Your task to perform on an android device: find photos in the google photos app Image 0: 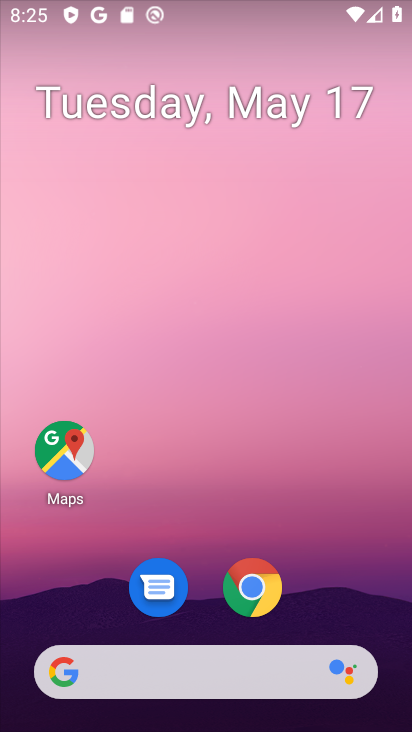
Step 0: drag from (293, 419) to (219, 246)
Your task to perform on an android device: find photos in the google photos app Image 1: 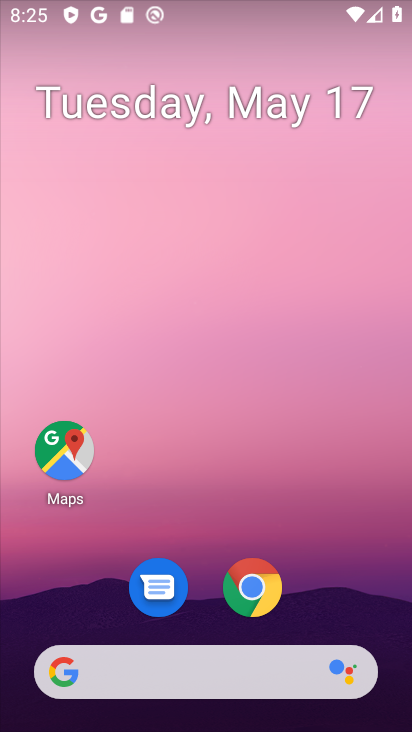
Step 1: drag from (334, 583) to (156, 131)
Your task to perform on an android device: find photos in the google photos app Image 2: 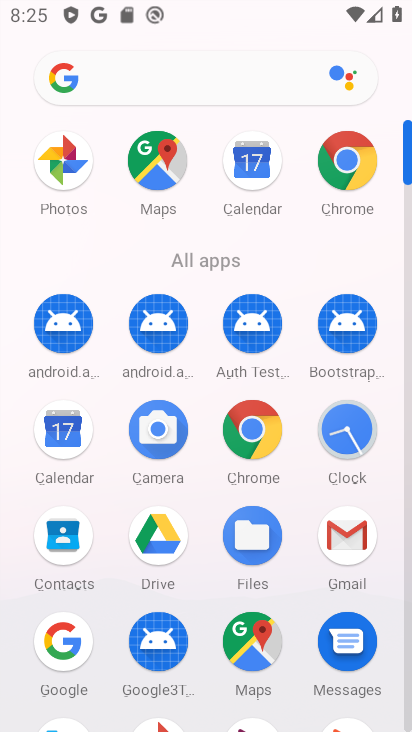
Step 2: click (63, 152)
Your task to perform on an android device: find photos in the google photos app Image 3: 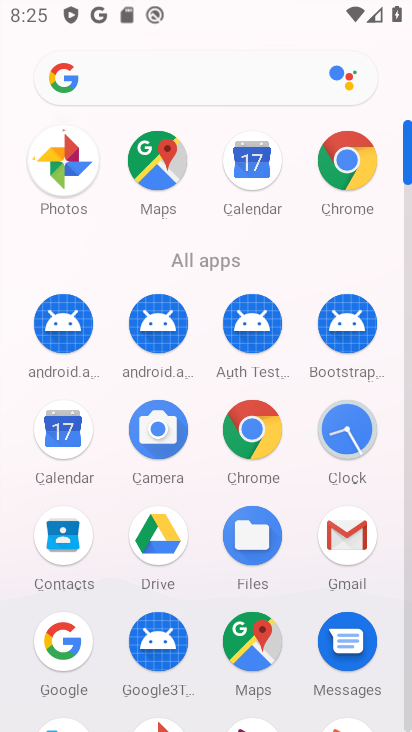
Step 3: click (67, 152)
Your task to perform on an android device: find photos in the google photos app Image 4: 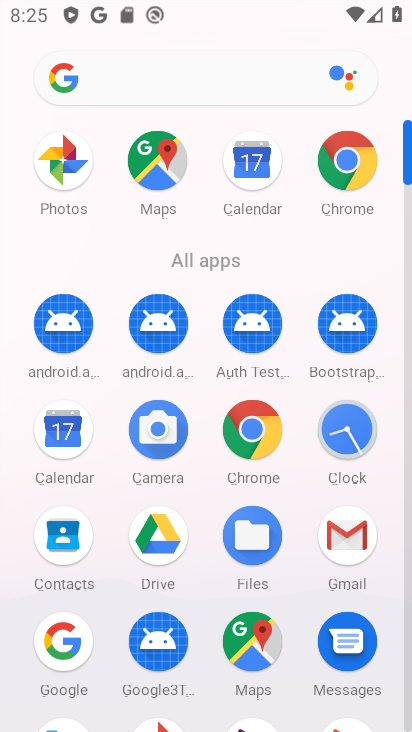
Step 4: click (67, 152)
Your task to perform on an android device: find photos in the google photos app Image 5: 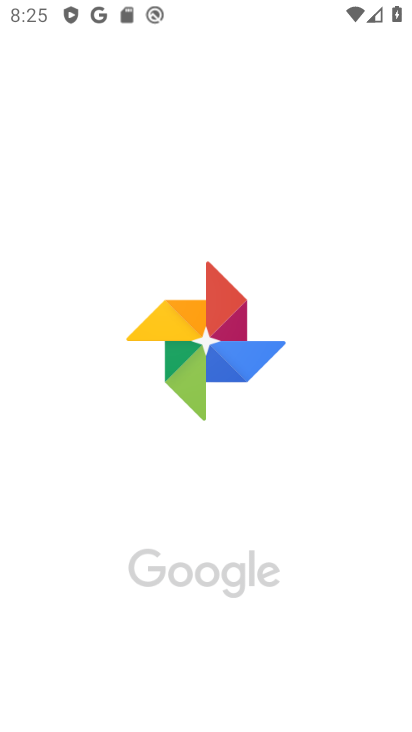
Step 5: click (67, 178)
Your task to perform on an android device: find photos in the google photos app Image 6: 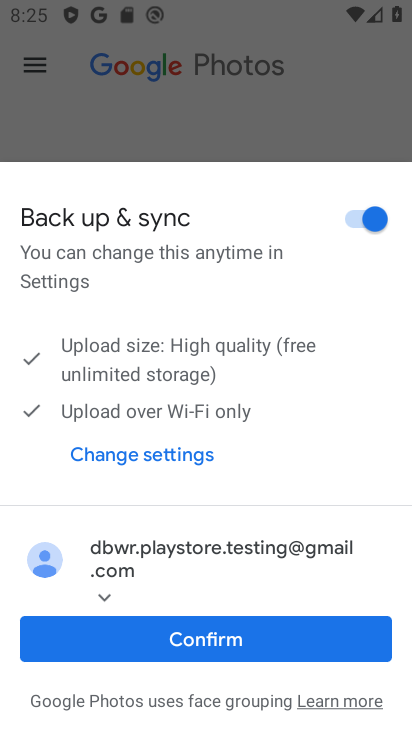
Step 6: click (220, 634)
Your task to perform on an android device: find photos in the google photos app Image 7: 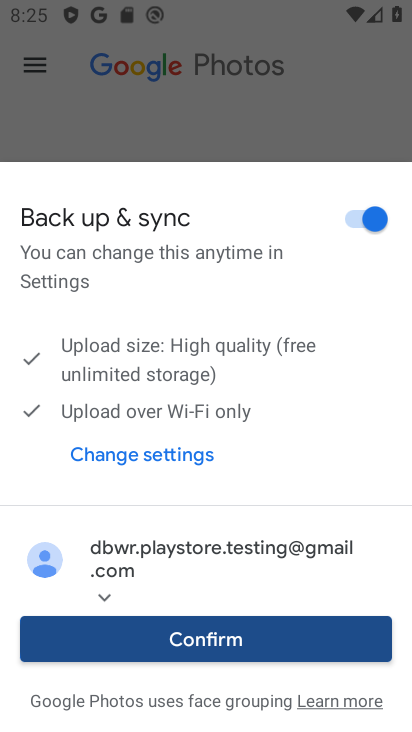
Step 7: click (219, 632)
Your task to perform on an android device: find photos in the google photos app Image 8: 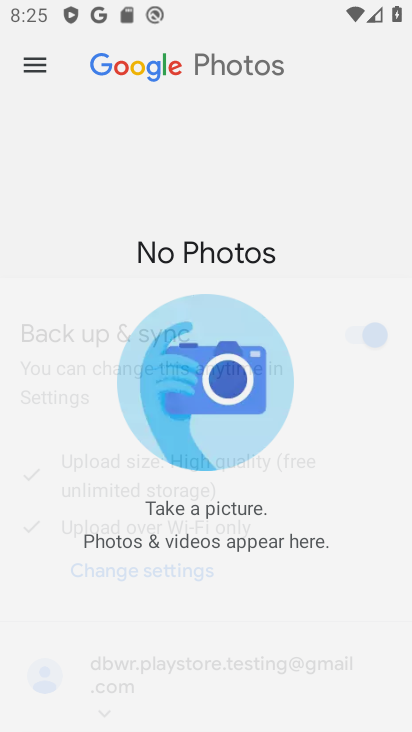
Step 8: click (219, 632)
Your task to perform on an android device: find photos in the google photos app Image 9: 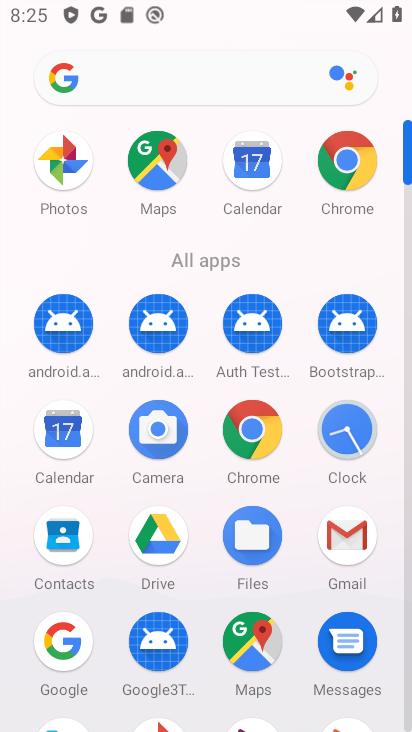
Step 9: click (219, 632)
Your task to perform on an android device: find photos in the google photos app Image 10: 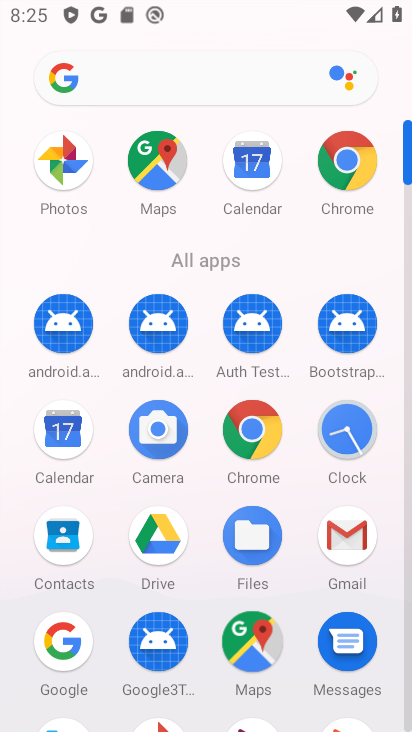
Step 10: click (217, 623)
Your task to perform on an android device: find photos in the google photos app Image 11: 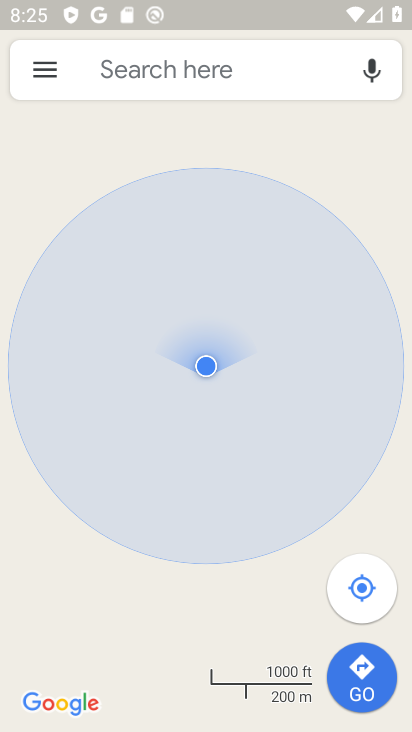
Step 11: press back button
Your task to perform on an android device: find photos in the google photos app Image 12: 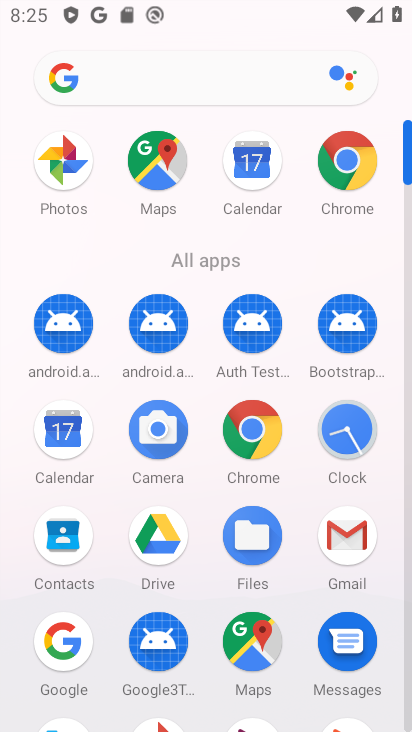
Step 12: click (65, 158)
Your task to perform on an android device: find photos in the google photos app Image 13: 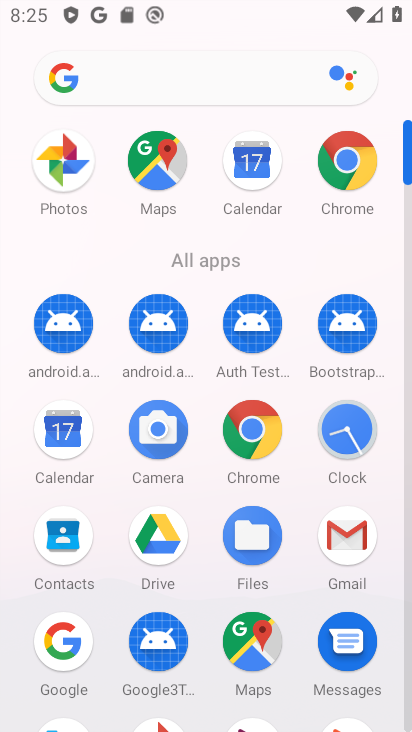
Step 13: click (62, 153)
Your task to perform on an android device: find photos in the google photos app Image 14: 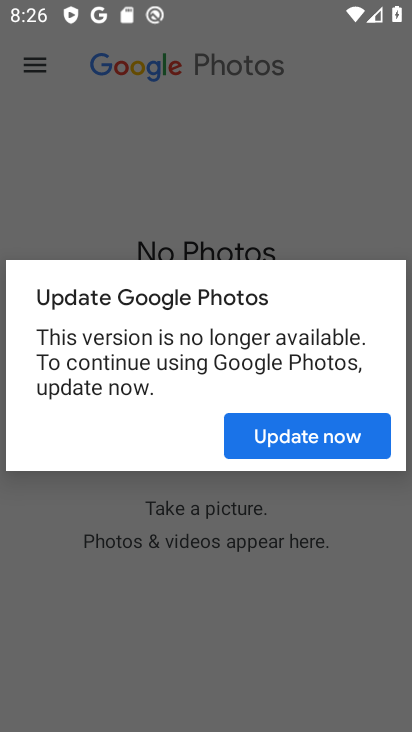
Step 14: click (292, 440)
Your task to perform on an android device: find photos in the google photos app Image 15: 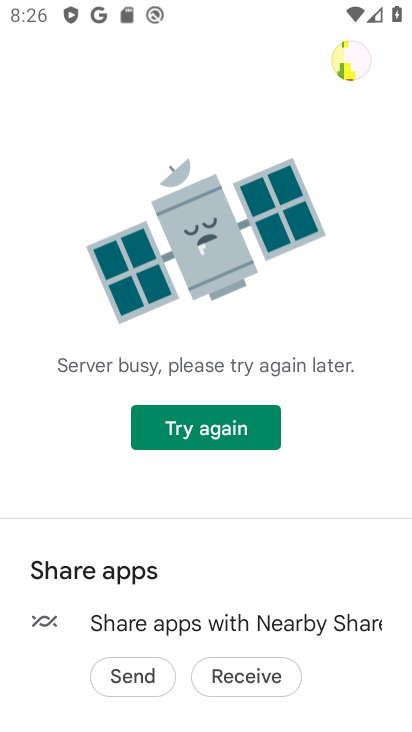
Step 15: task complete